Your task to perform on an android device: set the stopwatch Image 0: 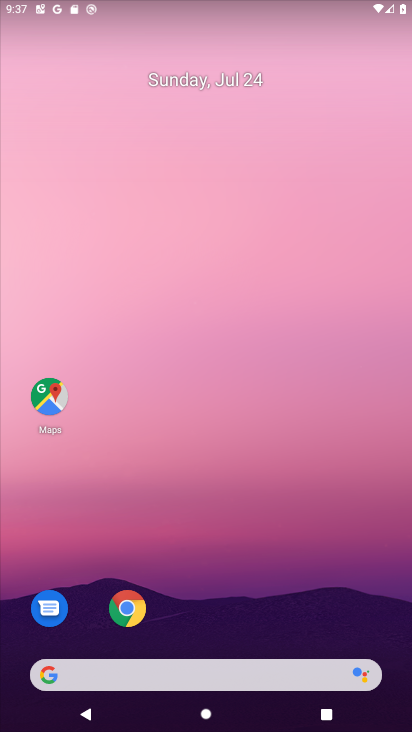
Step 0: drag from (200, 611) to (236, 47)
Your task to perform on an android device: set the stopwatch Image 1: 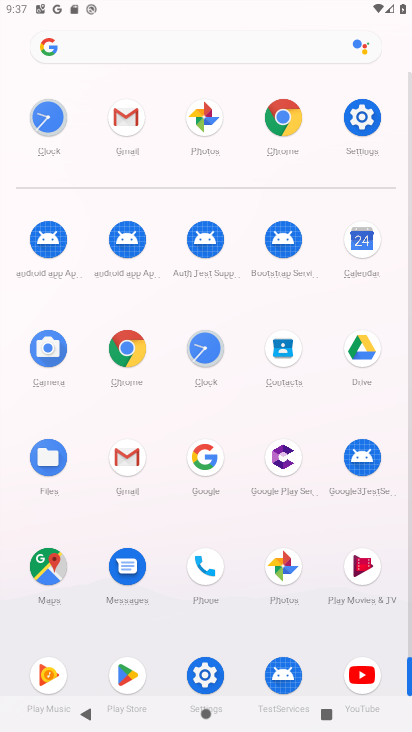
Step 1: click (23, 160)
Your task to perform on an android device: set the stopwatch Image 2: 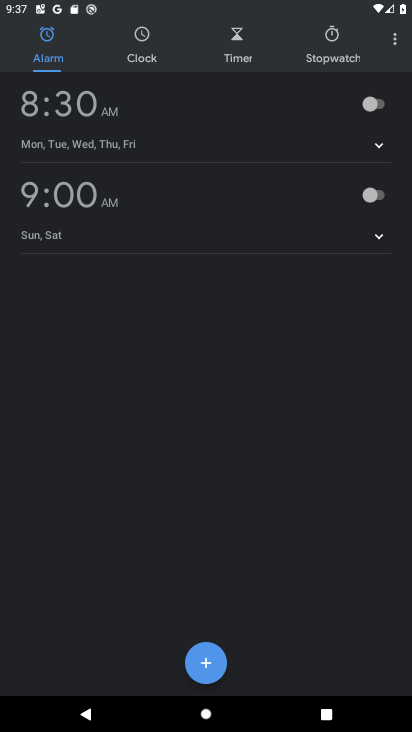
Step 2: click (333, 31)
Your task to perform on an android device: set the stopwatch Image 3: 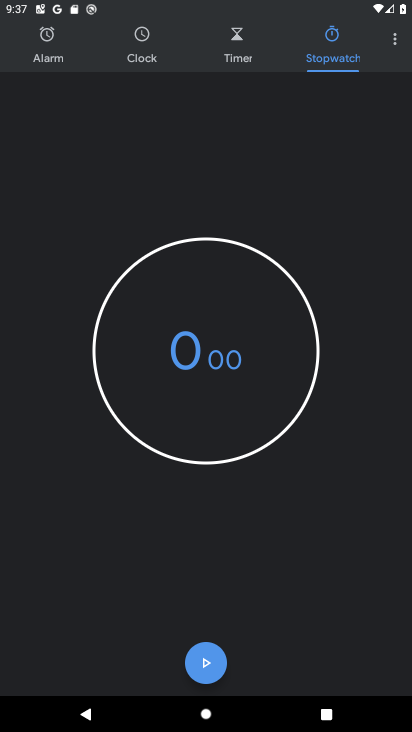
Step 3: click (214, 659)
Your task to perform on an android device: set the stopwatch Image 4: 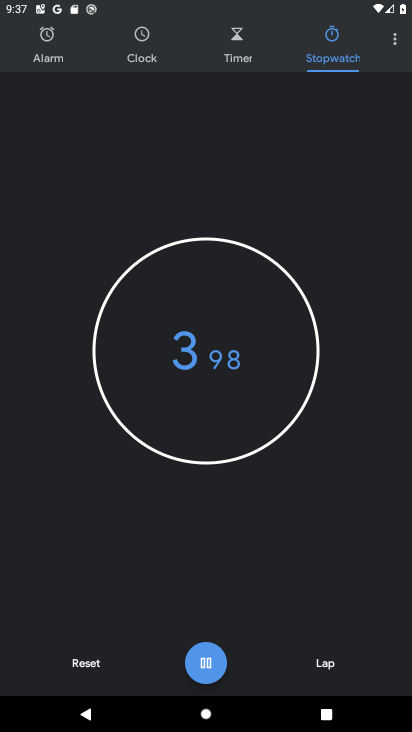
Step 4: task complete